Your task to perform on an android device: Open the phone app and click the voicemail tab. Image 0: 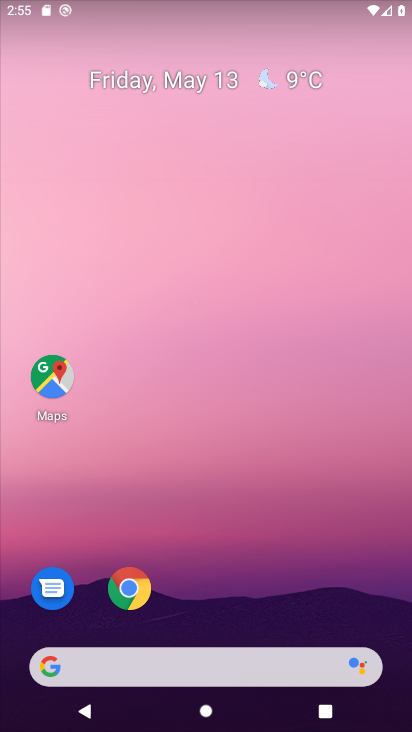
Step 0: drag from (333, 597) to (211, 97)
Your task to perform on an android device: Open the phone app and click the voicemail tab. Image 1: 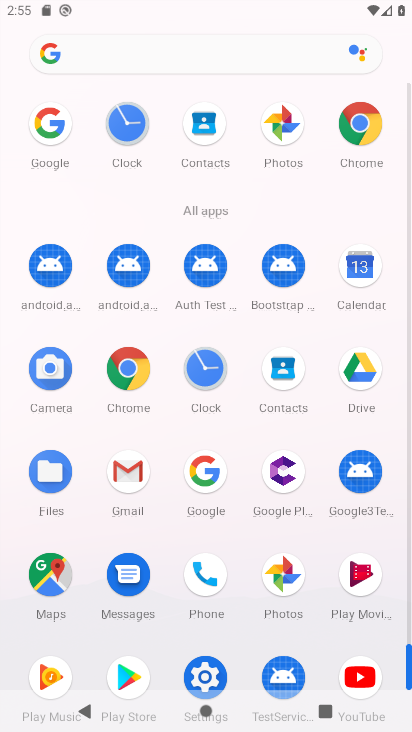
Step 1: click (205, 567)
Your task to perform on an android device: Open the phone app and click the voicemail tab. Image 2: 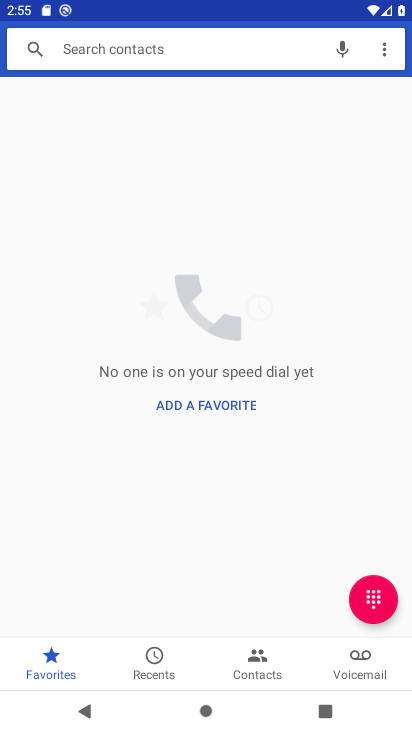
Step 2: click (355, 655)
Your task to perform on an android device: Open the phone app and click the voicemail tab. Image 3: 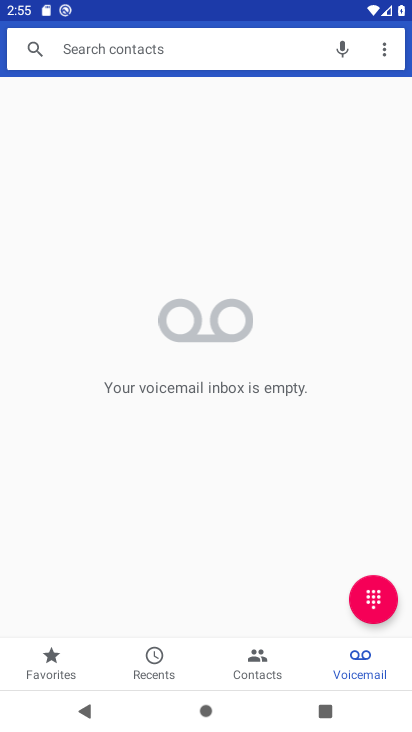
Step 3: task complete